Your task to perform on an android device: Open notification settings Image 0: 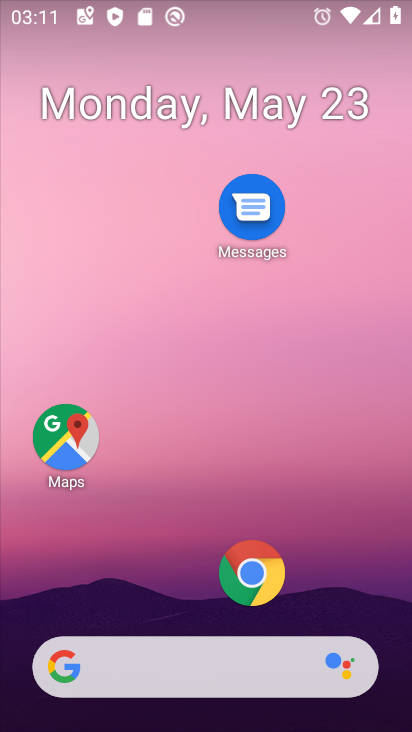
Step 0: drag from (258, 636) to (313, 48)
Your task to perform on an android device: Open notification settings Image 1: 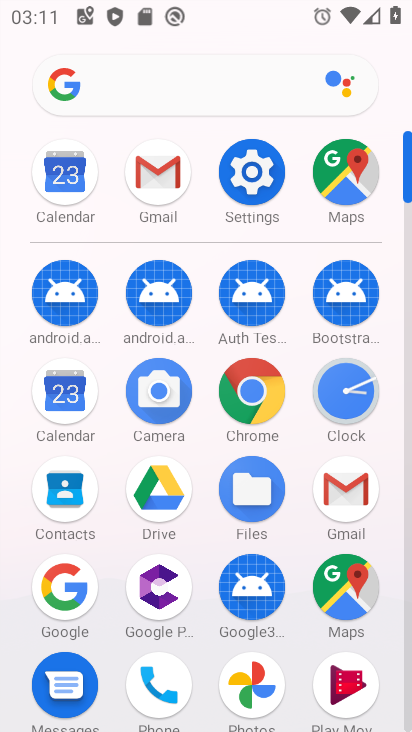
Step 1: click (256, 176)
Your task to perform on an android device: Open notification settings Image 2: 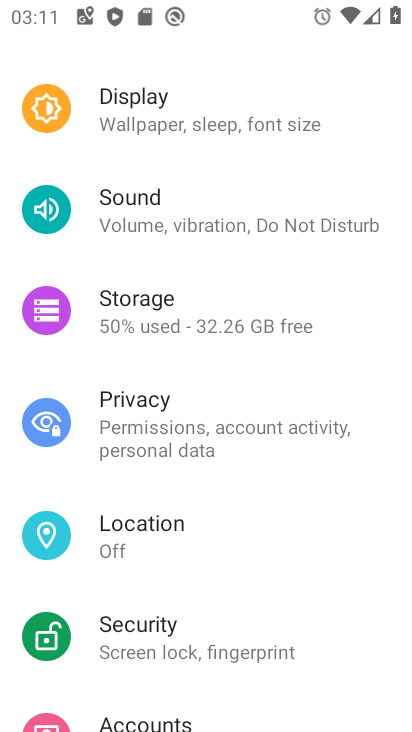
Step 2: drag from (260, 196) to (281, 714)
Your task to perform on an android device: Open notification settings Image 3: 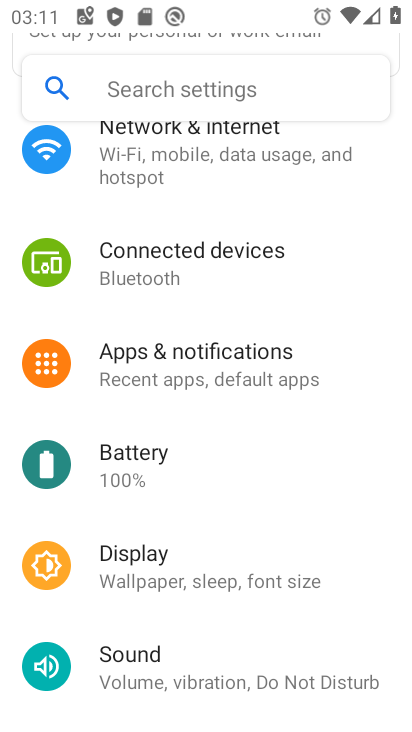
Step 3: click (205, 356)
Your task to perform on an android device: Open notification settings Image 4: 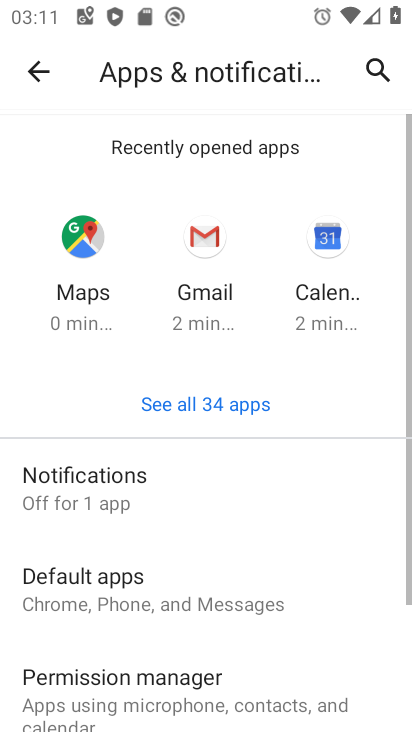
Step 4: drag from (229, 660) to (221, 260)
Your task to perform on an android device: Open notification settings Image 5: 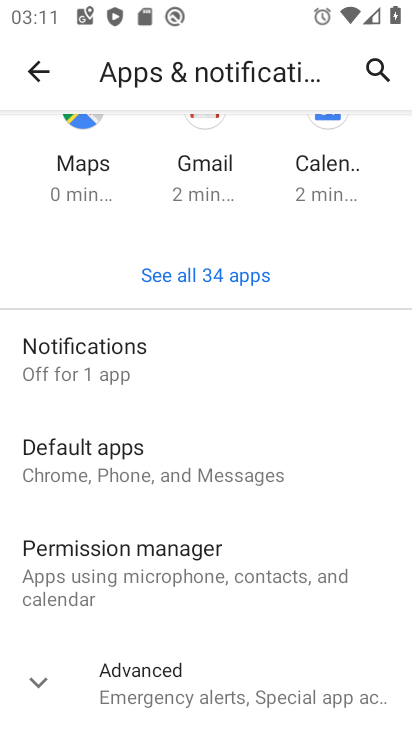
Step 5: click (119, 351)
Your task to perform on an android device: Open notification settings Image 6: 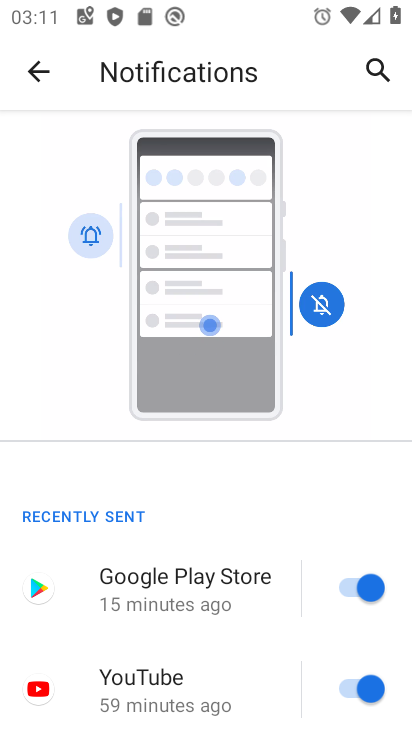
Step 6: task complete